Your task to perform on an android device: Show me productivity apps on the Play Store Image 0: 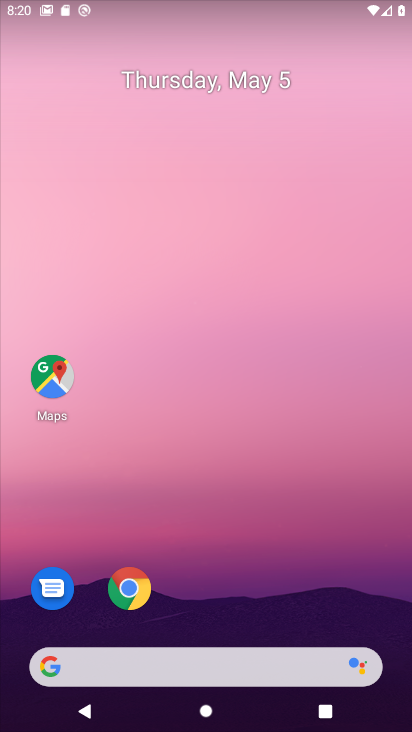
Step 0: drag from (218, 620) to (275, 73)
Your task to perform on an android device: Show me productivity apps on the Play Store Image 1: 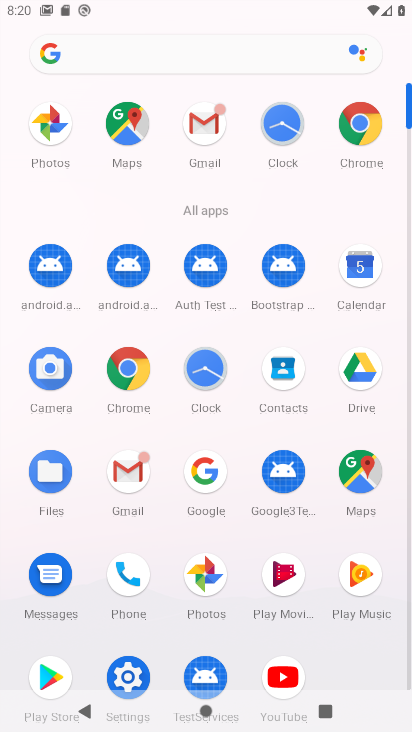
Step 1: click (53, 673)
Your task to perform on an android device: Show me productivity apps on the Play Store Image 2: 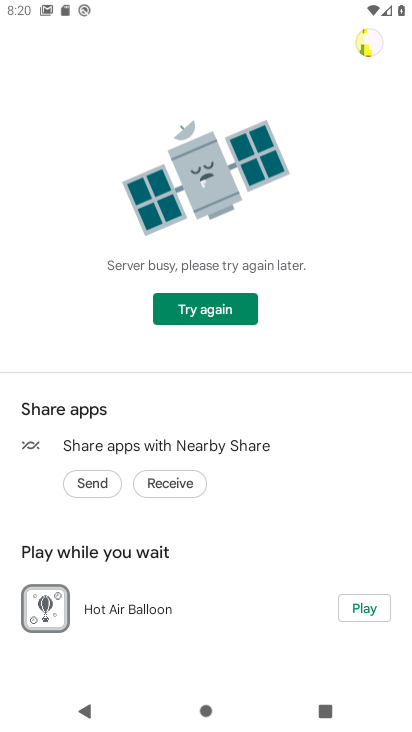
Step 2: click (191, 297)
Your task to perform on an android device: Show me productivity apps on the Play Store Image 3: 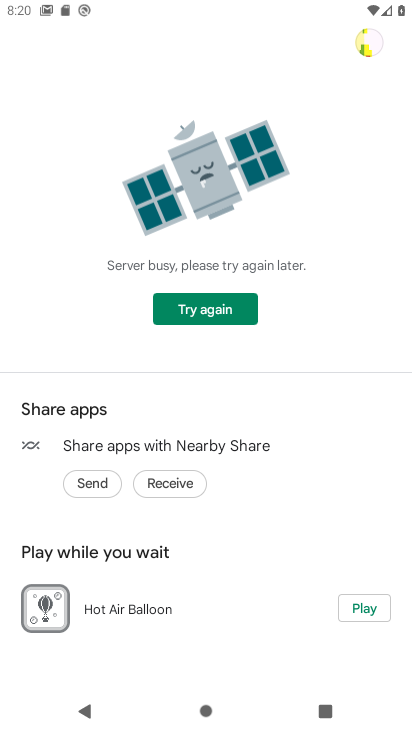
Step 3: click (205, 311)
Your task to perform on an android device: Show me productivity apps on the Play Store Image 4: 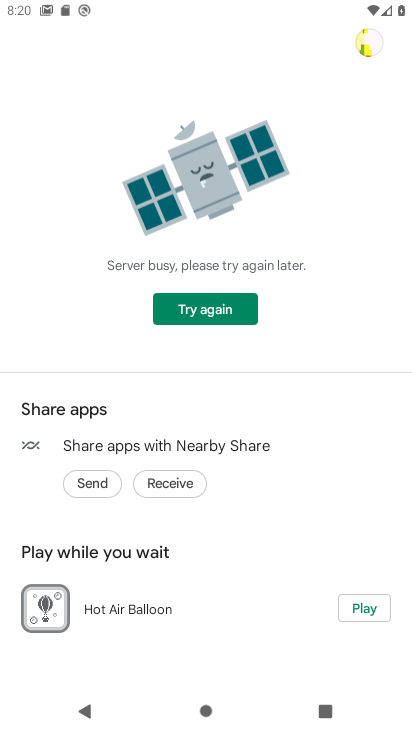
Step 4: task complete